Your task to perform on an android device: move an email to a new category in the gmail app Image 0: 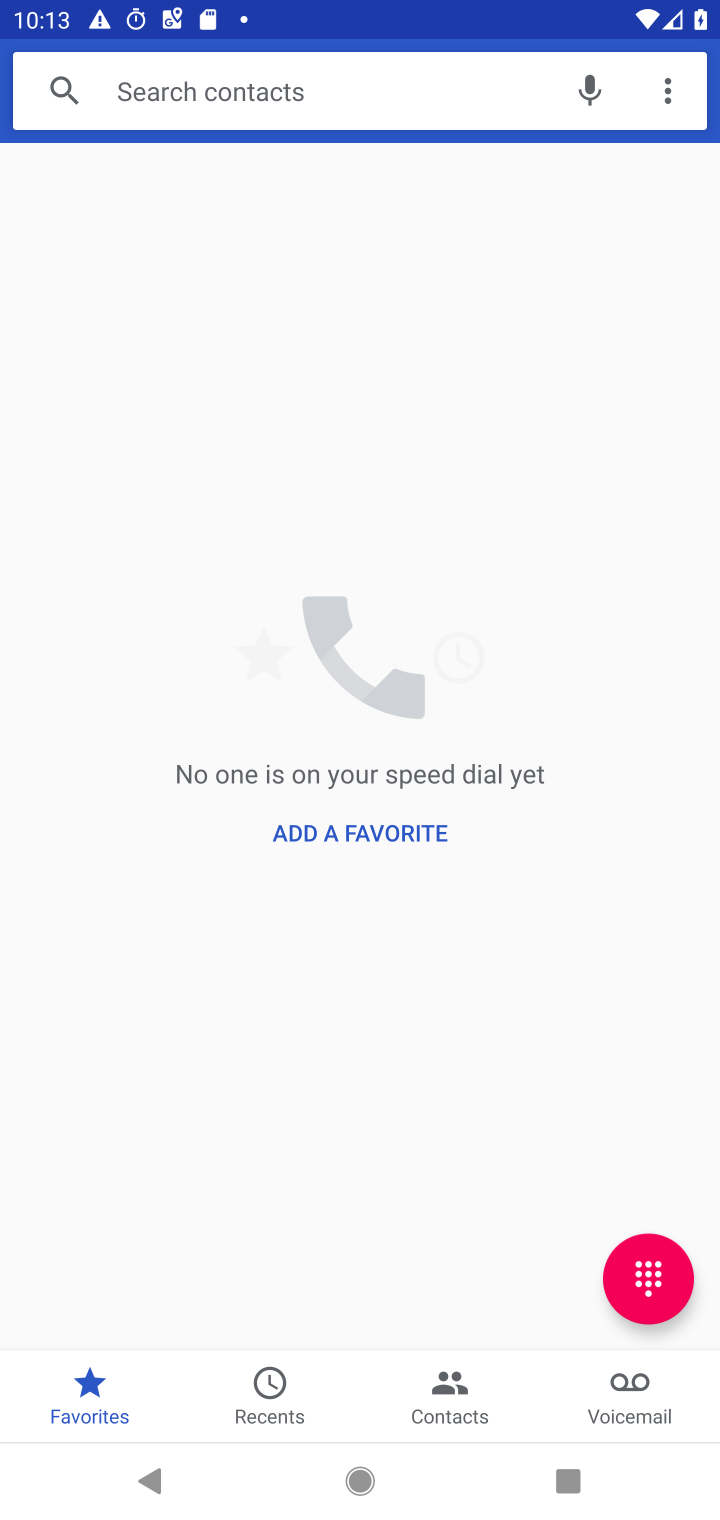
Step 0: press home button
Your task to perform on an android device: move an email to a new category in the gmail app Image 1: 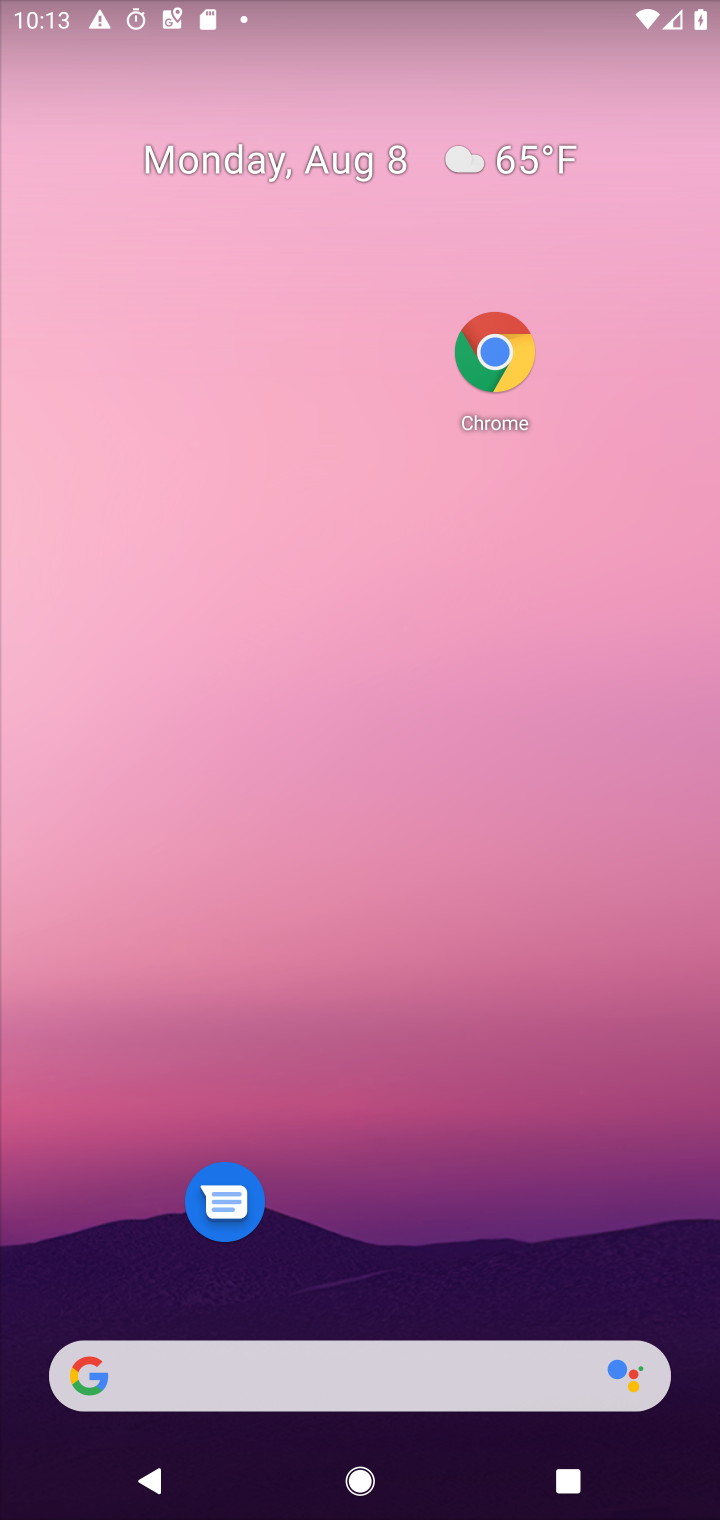
Step 1: drag from (384, 1240) to (515, 211)
Your task to perform on an android device: move an email to a new category in the gmail app Image 2: 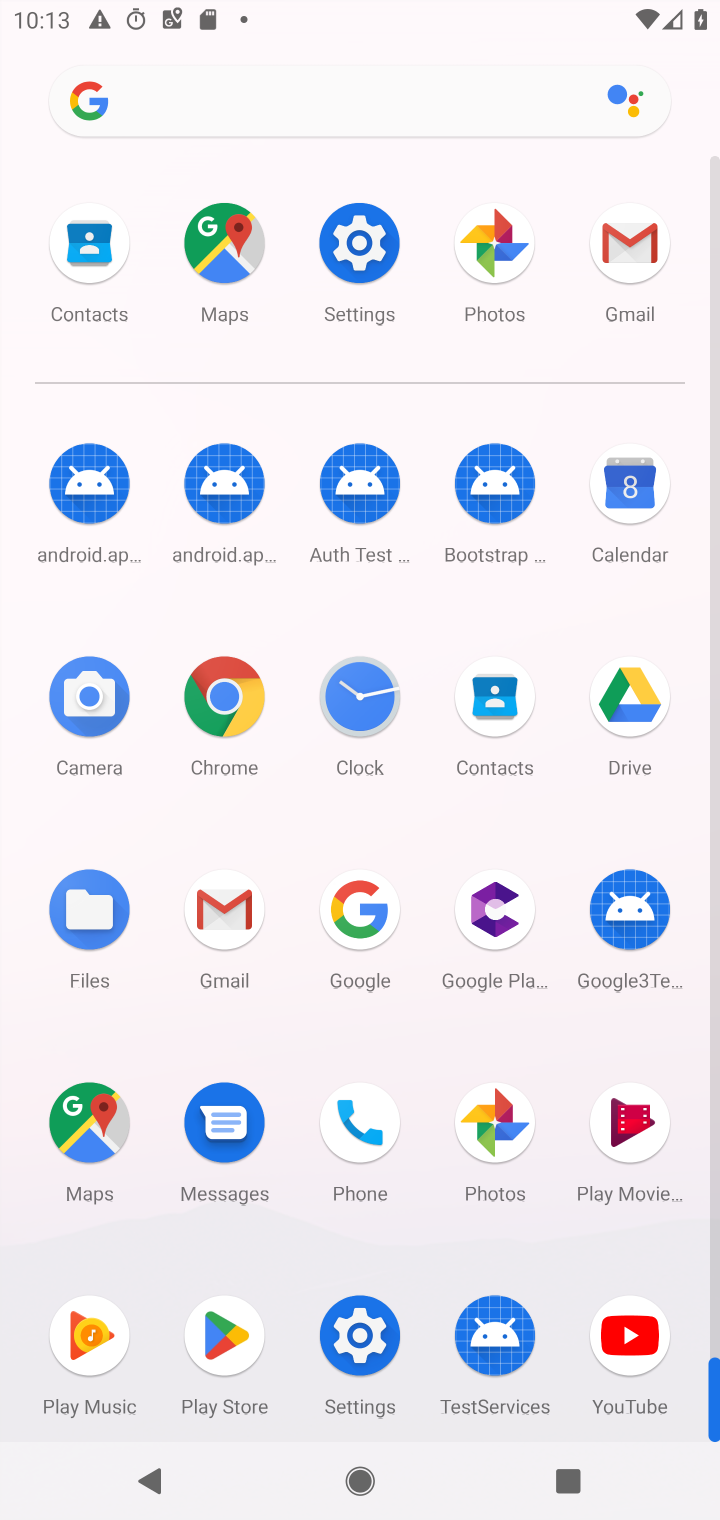
Step 2: click (232, 943)
Your task to perform on an android device: move an email to a new category in the gmail app Image 3: 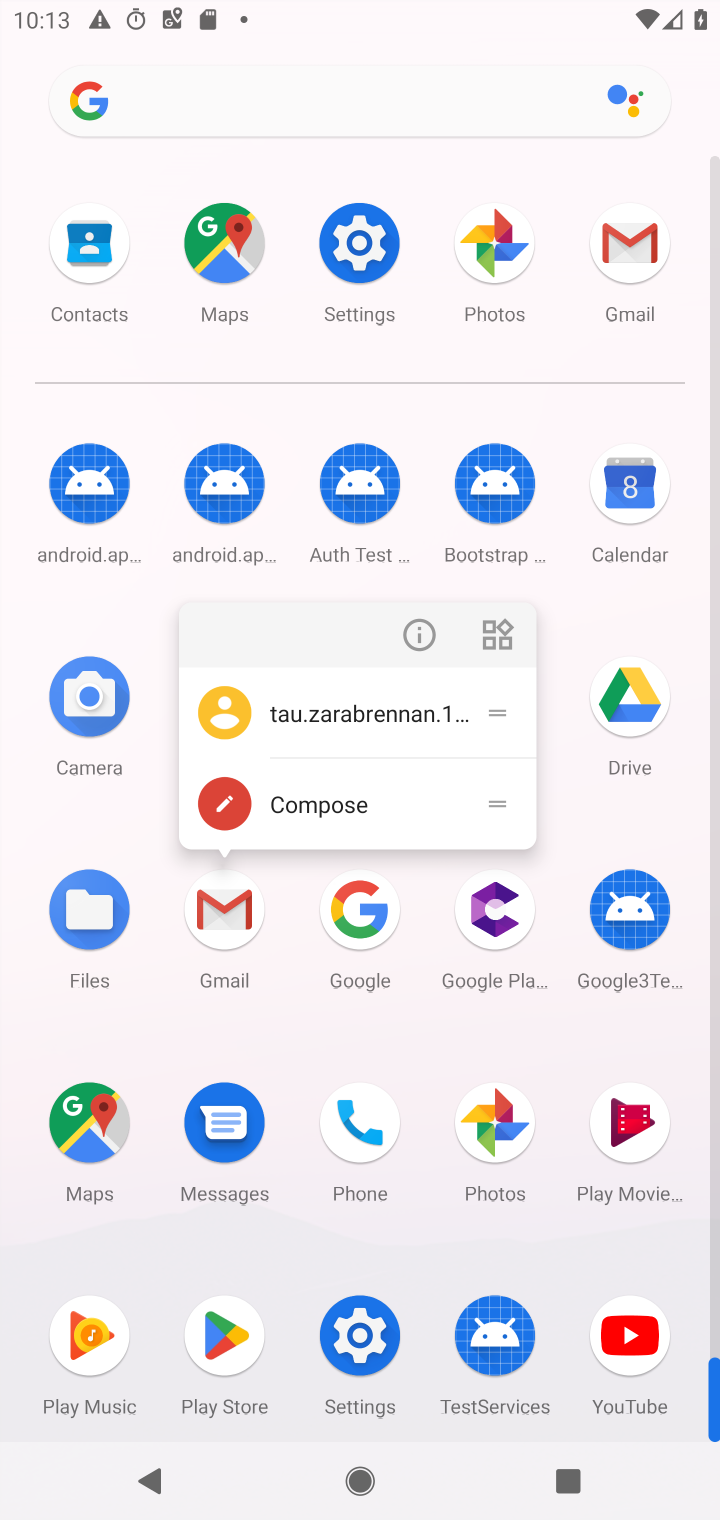
Step 3: click (234, 928)
Your task to perform on an android device: move an email to a new category in the gmail app Image 4: 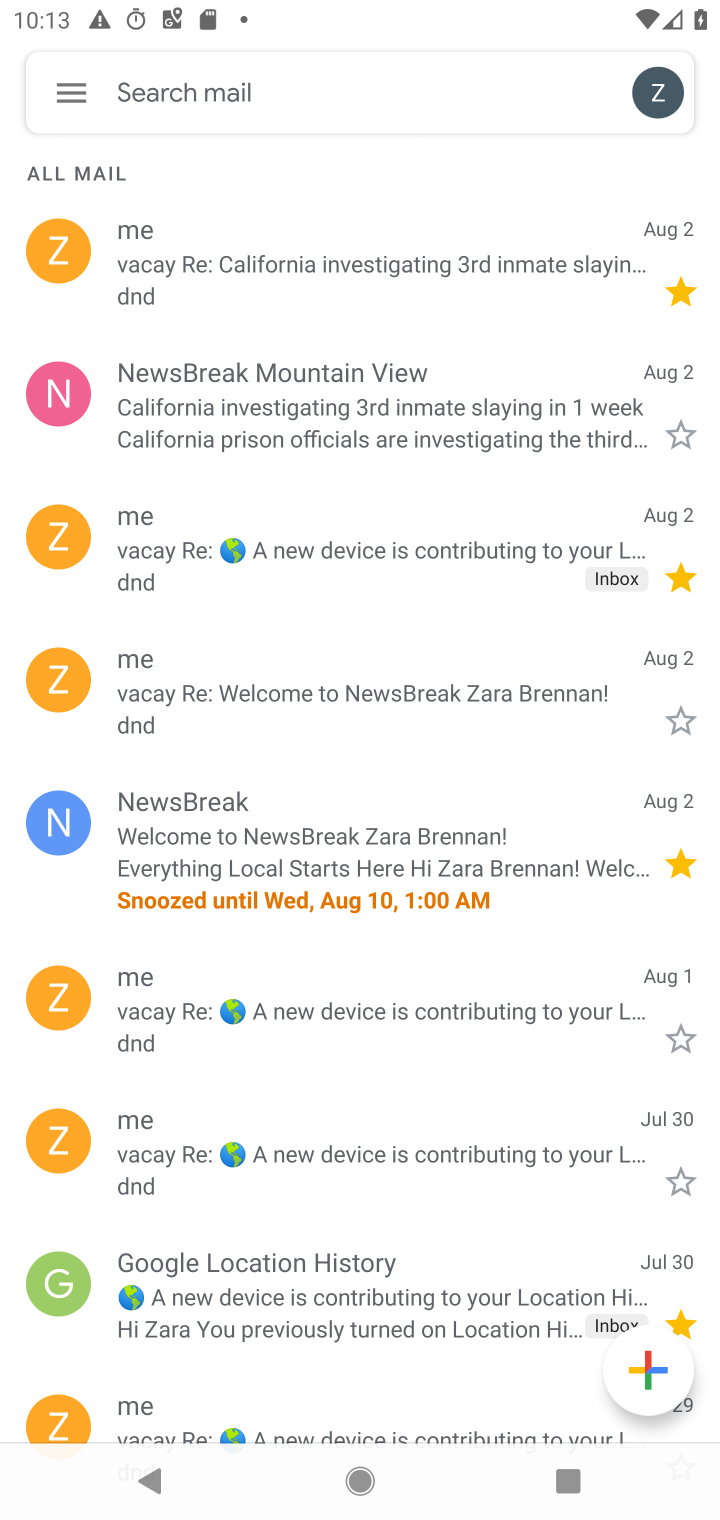
Step 4: click (71, 93)
Your task to perform on an android device: move an email to a new category in the gmail app Image 5: 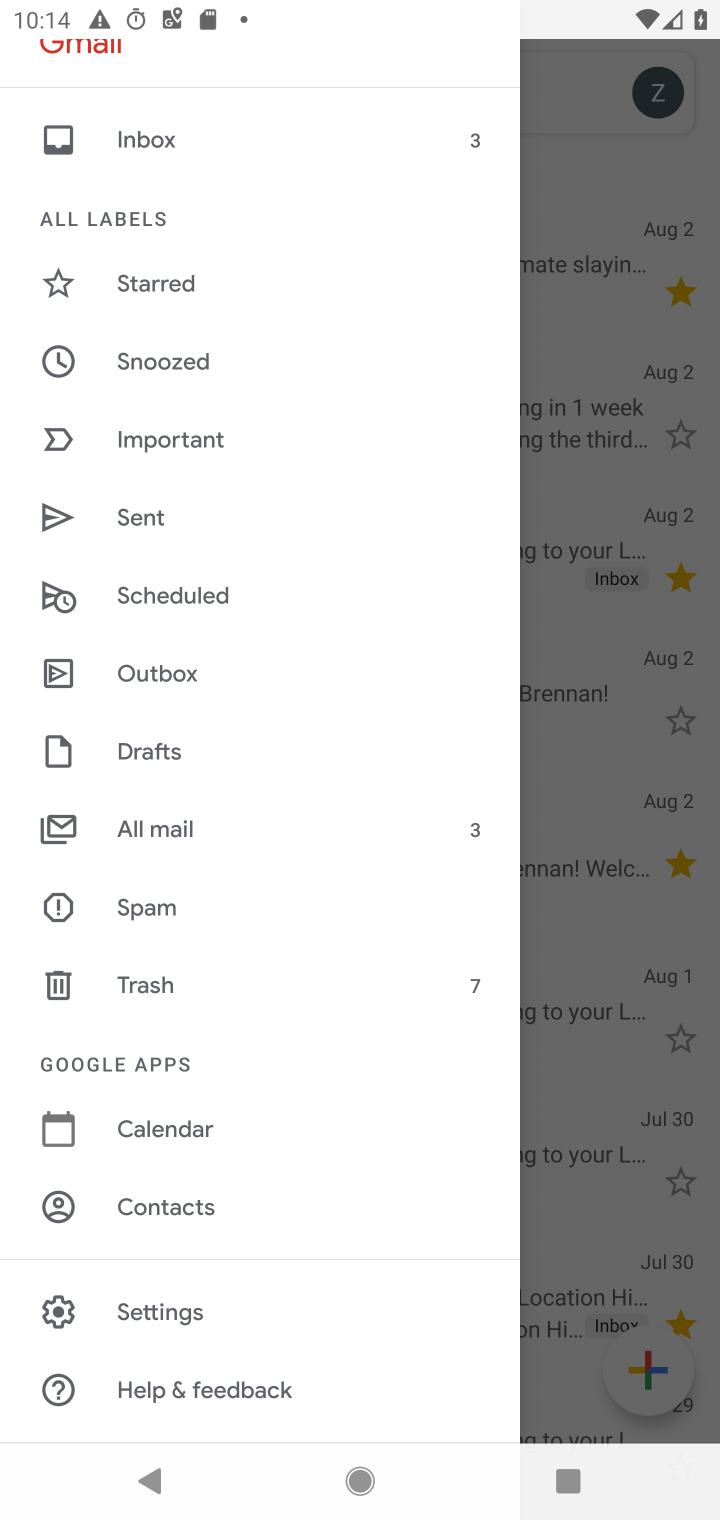
Step 5: click (128, 832)
Your task to perform on an android device: move an email to a new category in the gmail app Image 6: 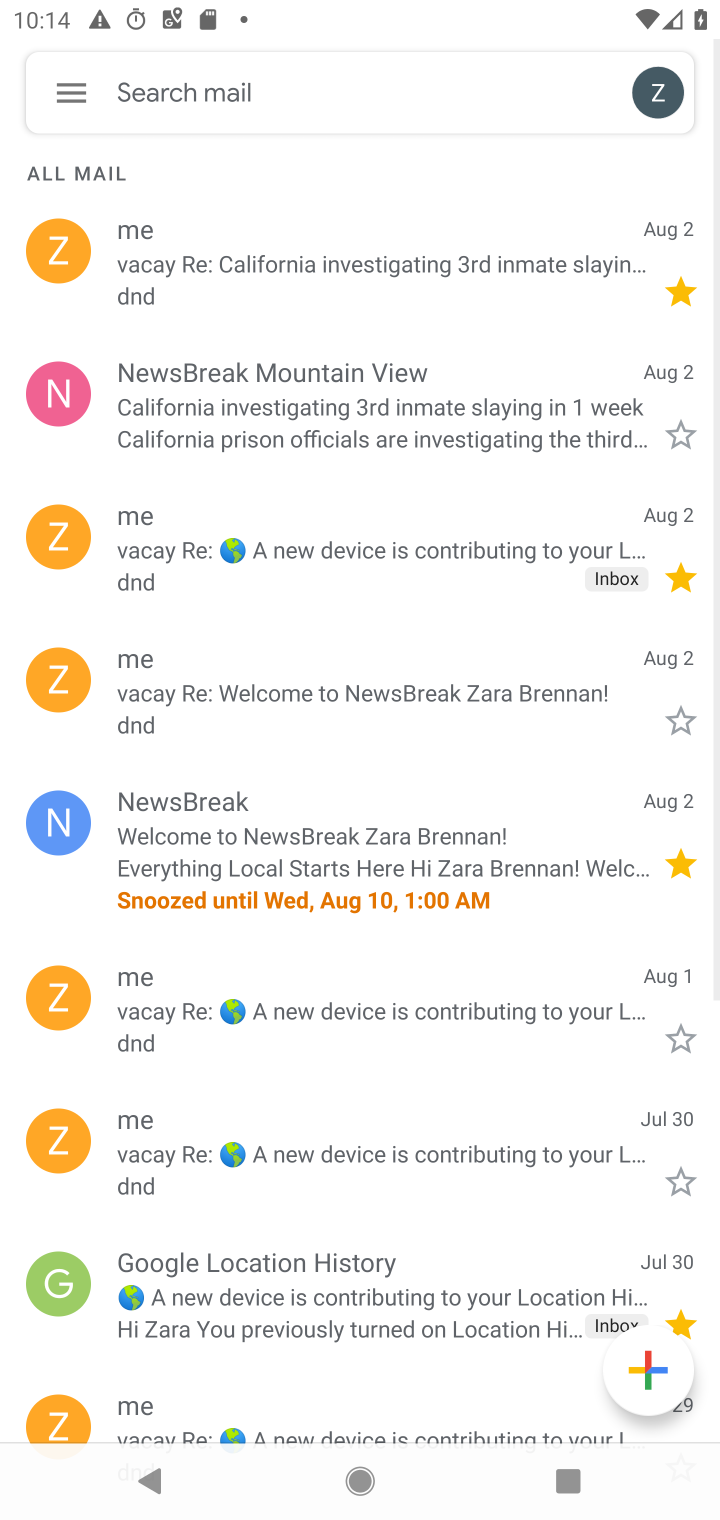
Step 6: click (430, 264)
Your task to perform on an android device: move an email to a new category in the gmail app Image 7: 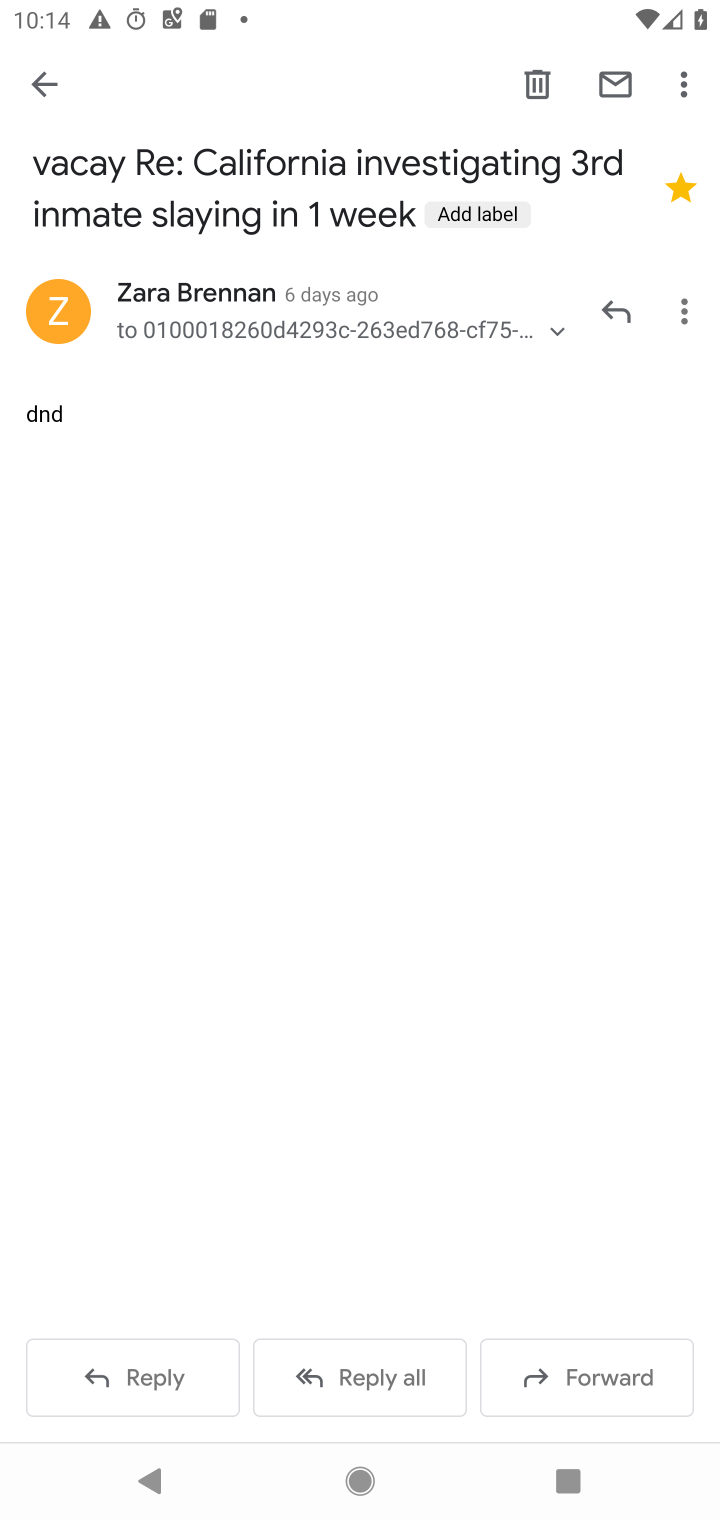
Step 7: click (693, 91)
Your task to perform on an android device: move an email to a new category in the gmail app Image 8: 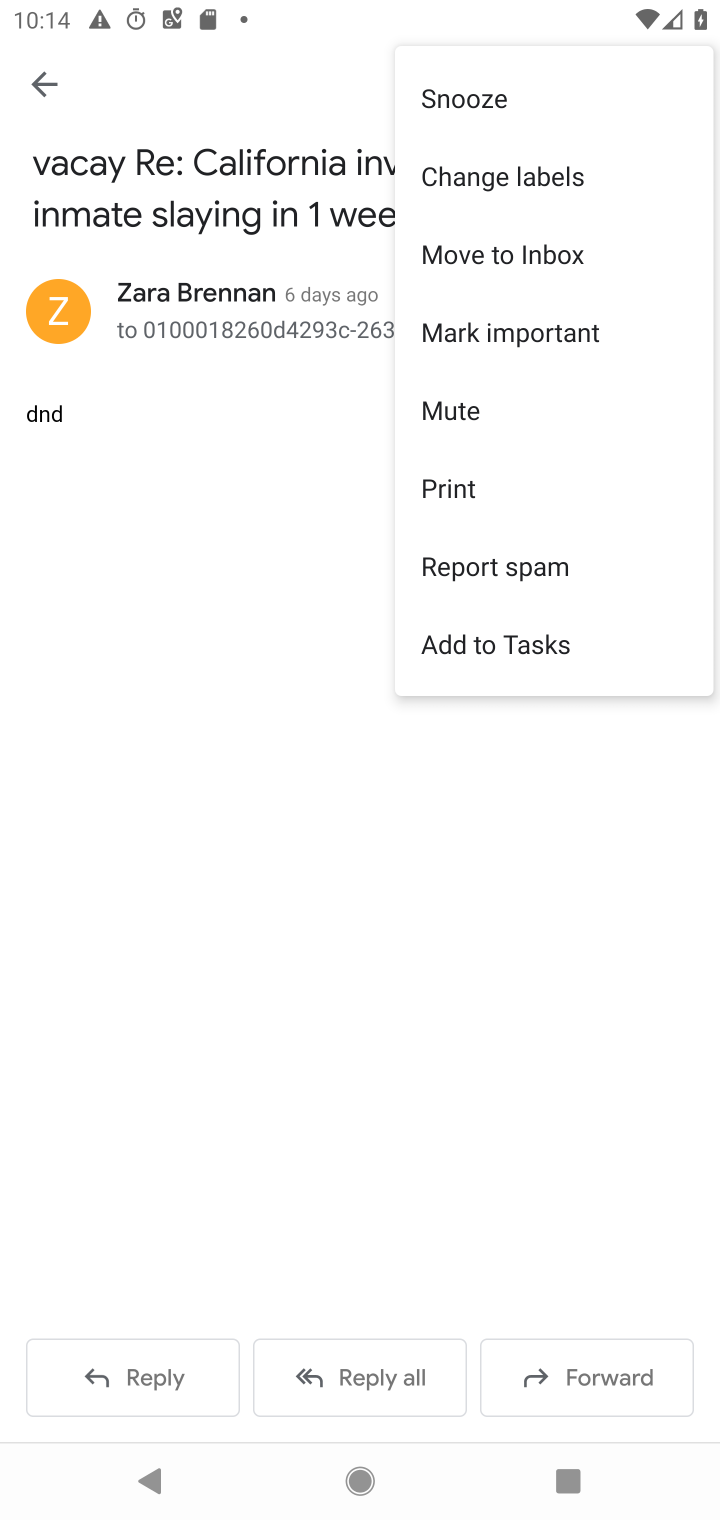
Step 8: click (522, 168)
Your task to perform on an android device: move an email to a new category in the gmail app Image 9: 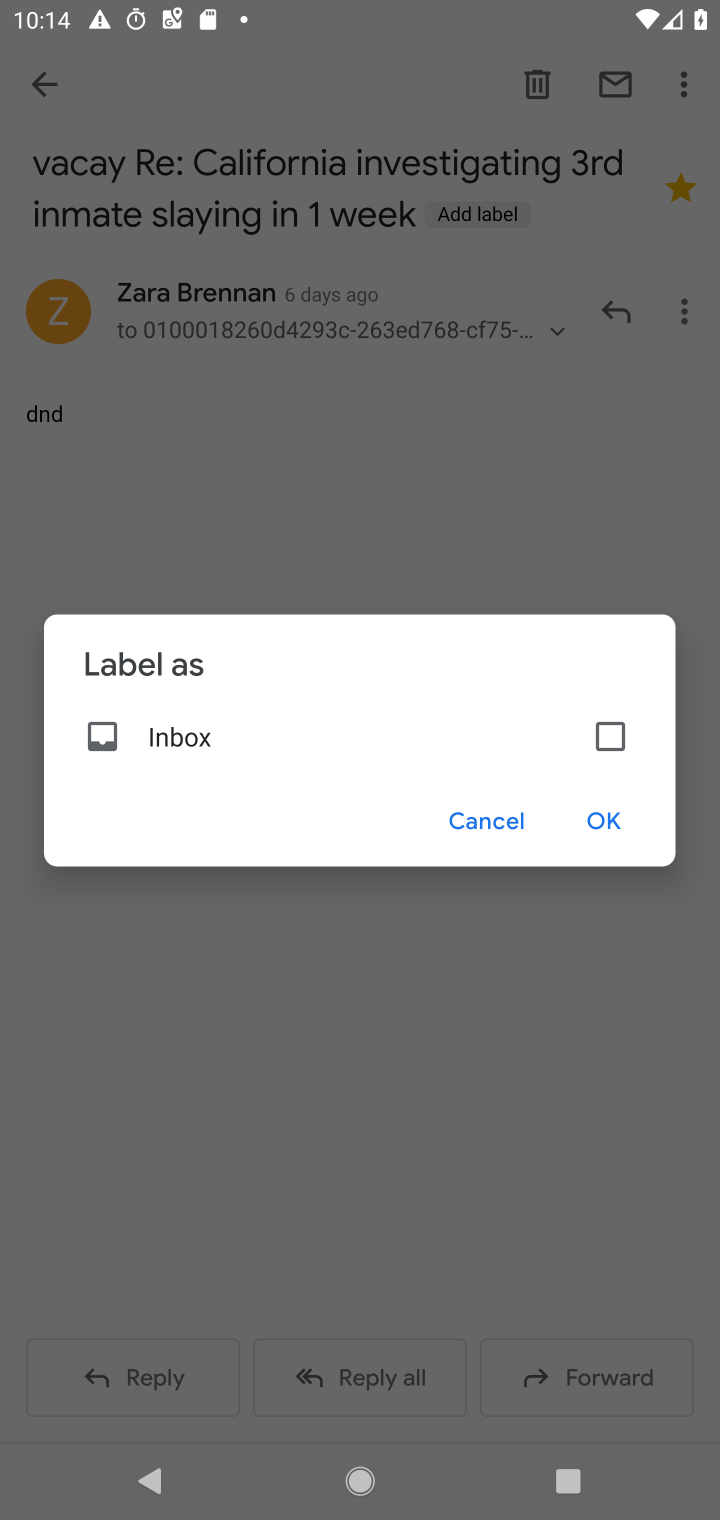
Step 9: click (614, 737)
Your task to perform on an android device: move an email to a new category in the gmail app Image 10: 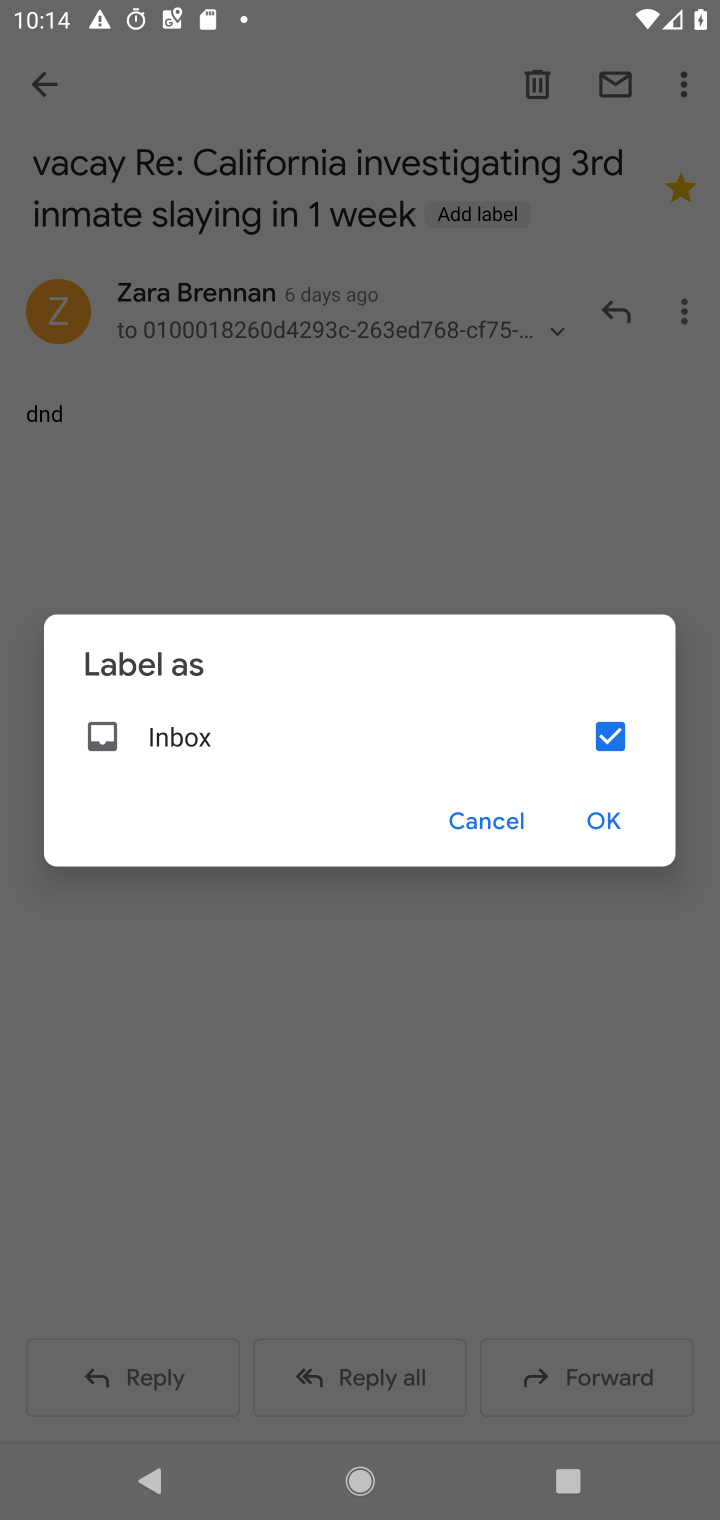
Step 10: click (610, 820)
Your task to perform on an android device: move an email to a new category in the gmail app Image 11: 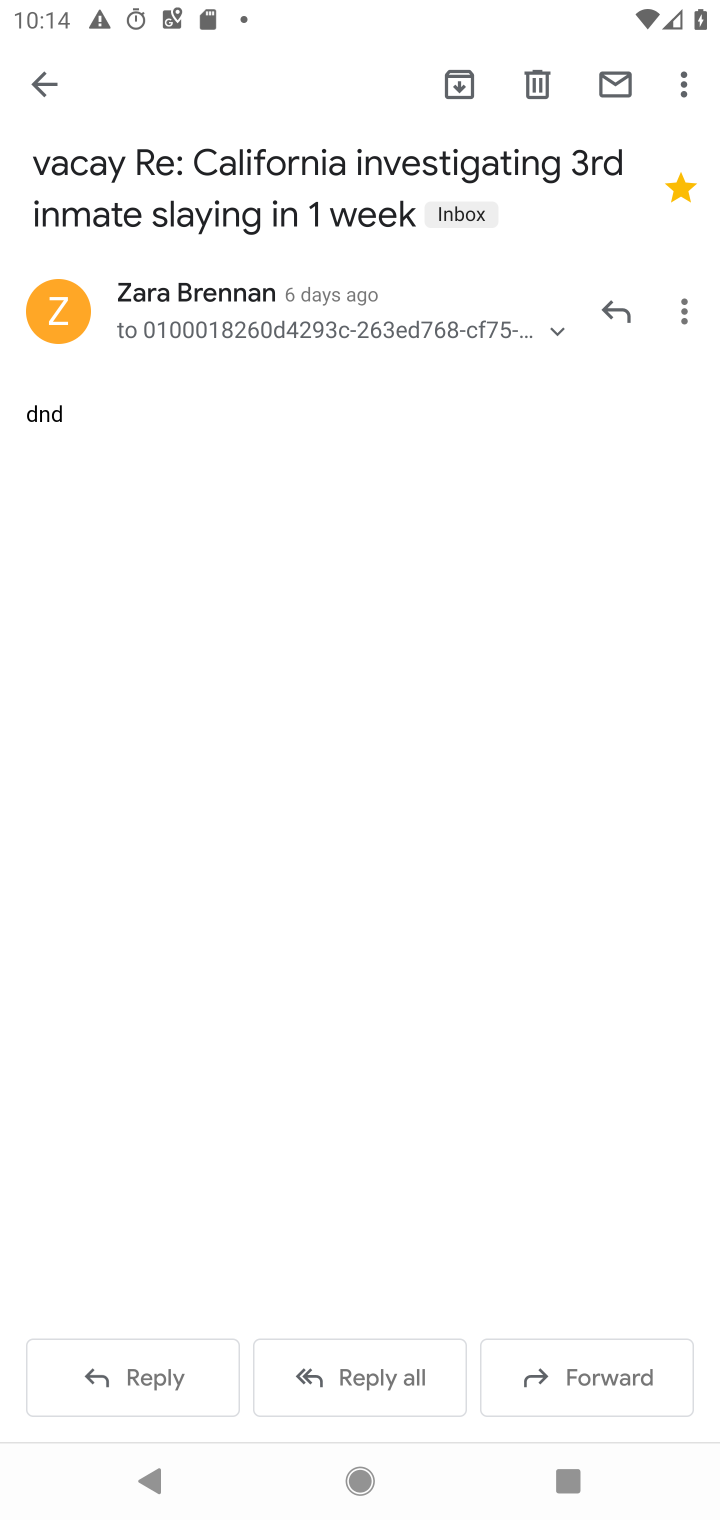
Step 11: task complete